Your task to perform on an android device: open app "Truecaller" Image 0: 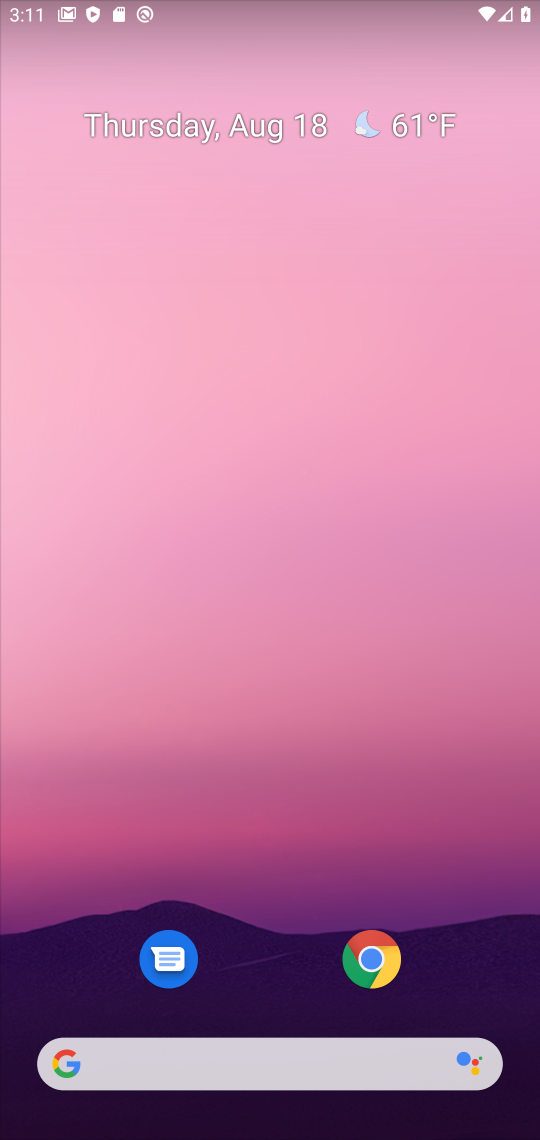
Step 0: drag from (361, 923) to (429, 91)
Your task to perform on an android device: open app "Truecaller" Image 1: 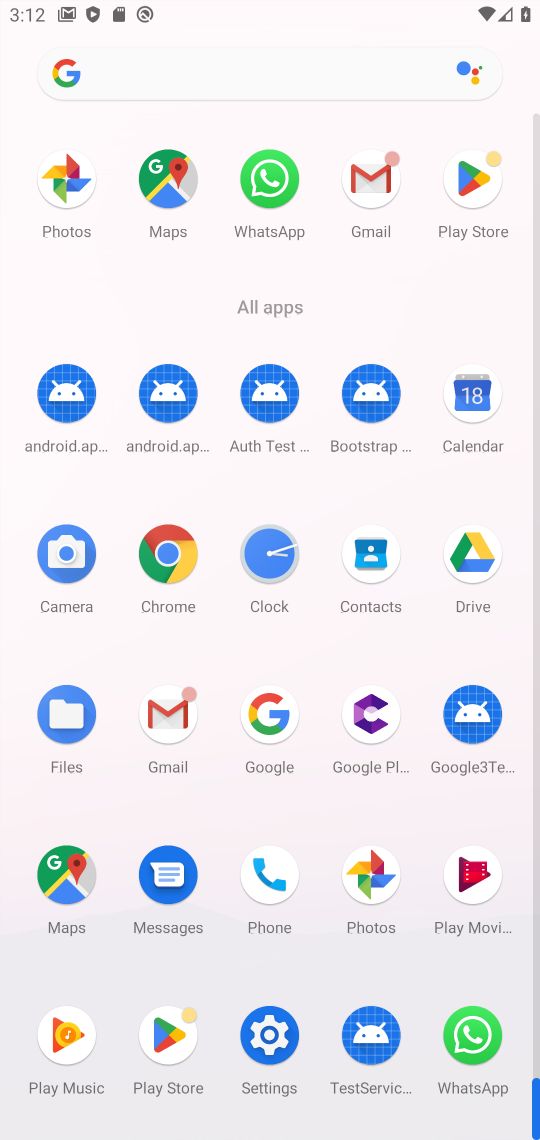
Step 1: task complete